Your task to perform on an android device: change timer sound Image 0: 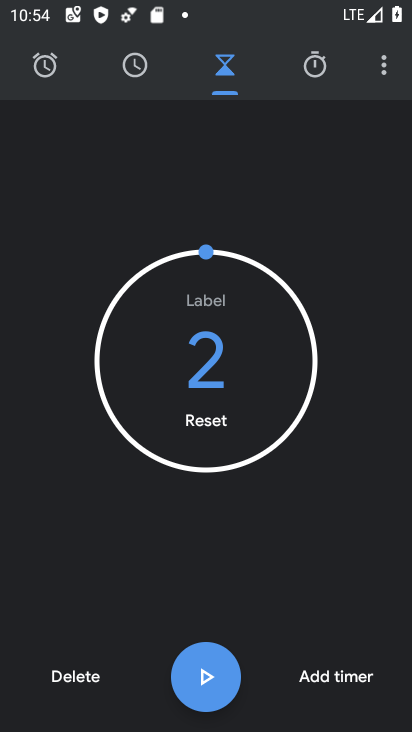
Step 0: click (394, 60)
Your task to perform on an android device: change timer sound Image 1: 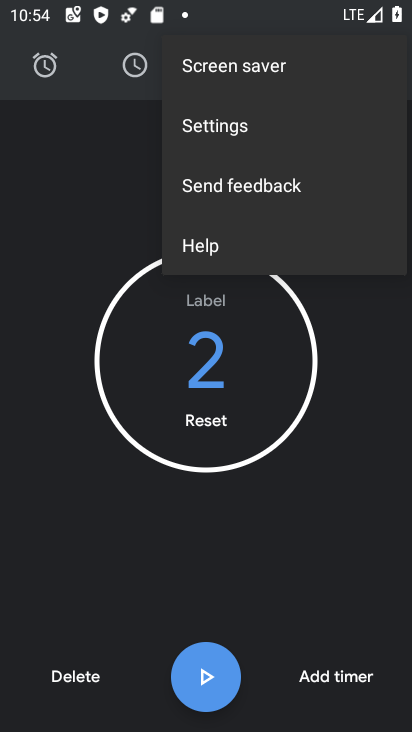
Step 1: click (240, 118)
Your task to perform on an android device: change timer sound Image 2: 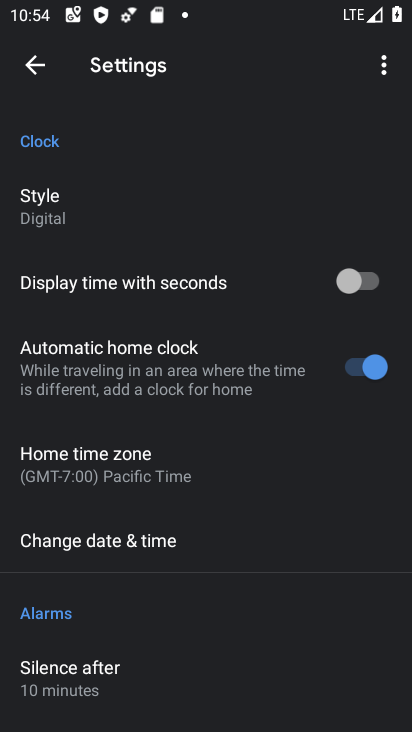
Step 2: drag from (184, 275) to (183, 135)
Your task to perform on an android device: change timer sound Image 3: 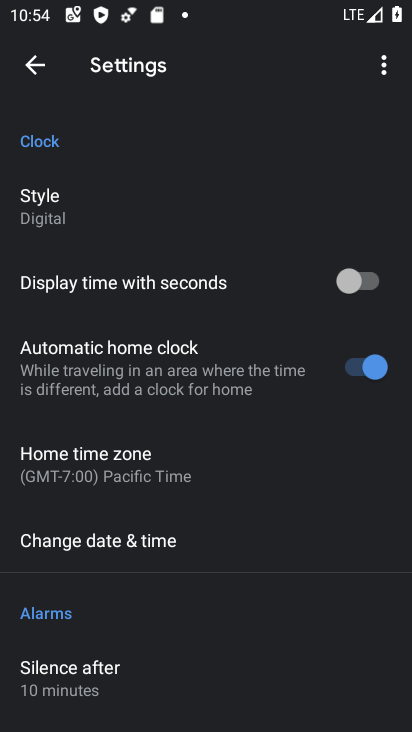
Step 3: drag from (141, 626) to (261, 100)
Your task to perform on an android device: change timer sound Image 4: 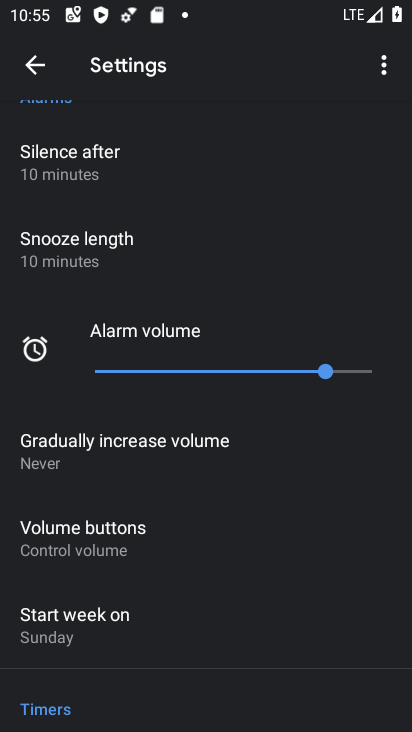
Step 4: drag from (137, 605) to (168, 156)
Your task to perform on an android device: change timer sound Image 5: 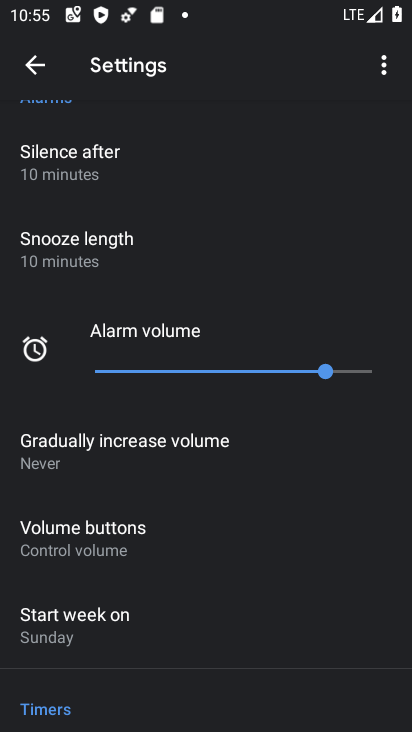
Step 5: drag from (136, 635) to (187, 201)
Your task to perform on an android device: change timer sound Image 6: 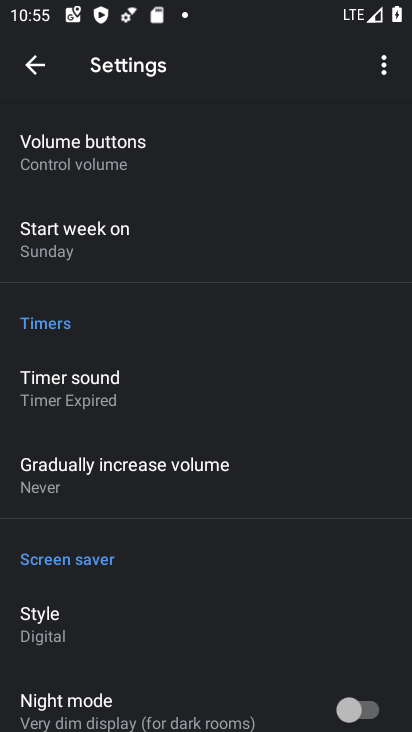
Step 6: click (131, 344)
Your task to perform on an android device: change timer sound Image 7: 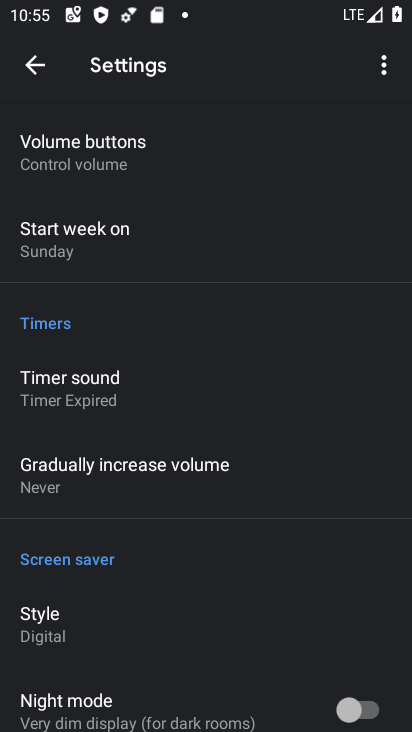
Step 7: click (114, 403)
Your task to perform on an android device: change timer sound Image 8: 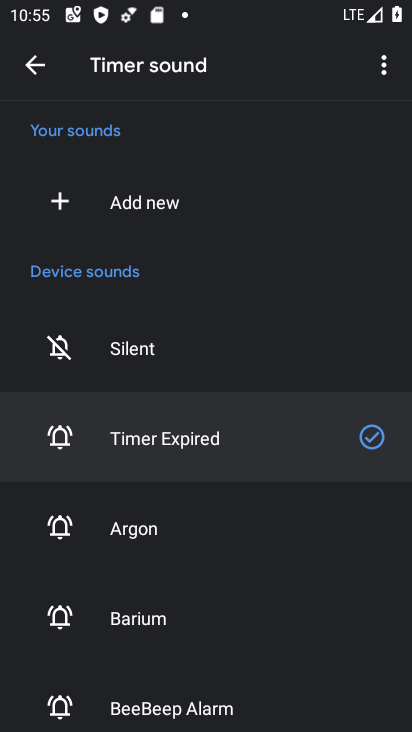
Step 8: click (193, 534)
Your task to perform on an android device: change timer sound Image 9: 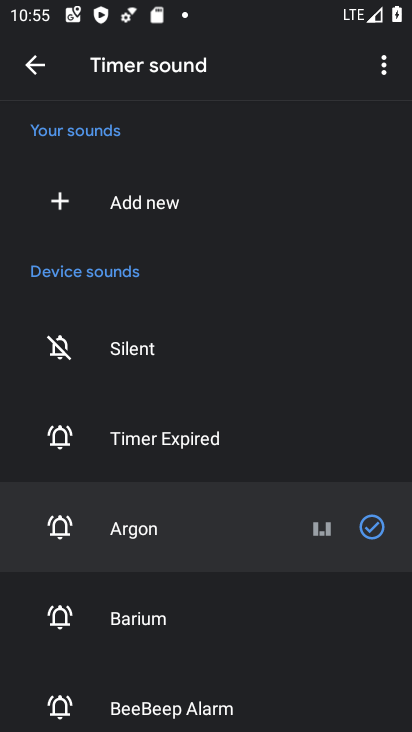
Step 9: task complete